Your task to perform on an android device: Go to notification settings Image 0: 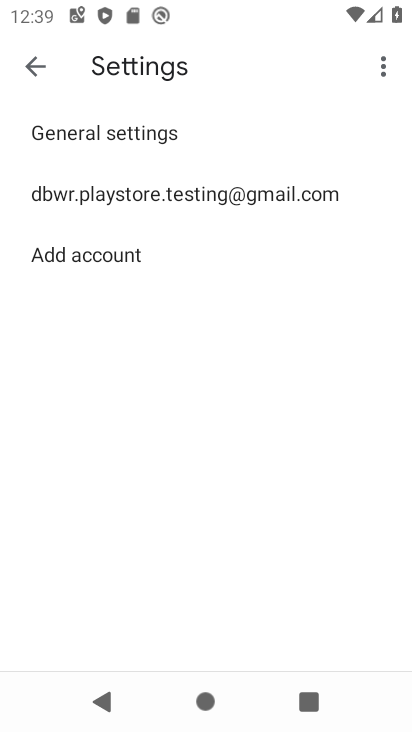
Step 0: press home button
Your task to perform on an android device: Go to notification settings Image 1: 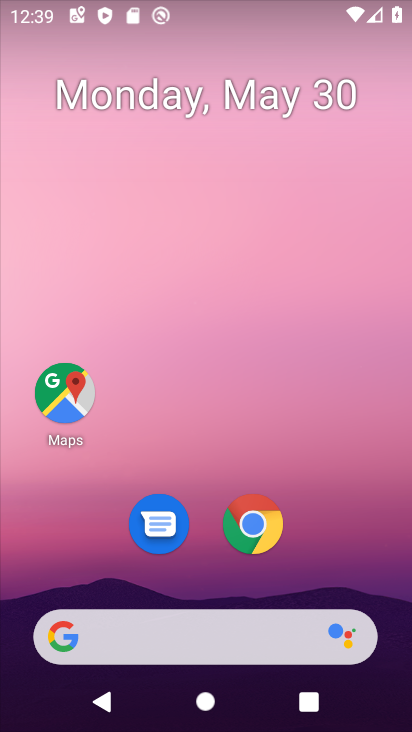
Step 1: drag from (248, 435) to (264, 1)
Your task to perform on an android device: Go to notification settings Image 2: 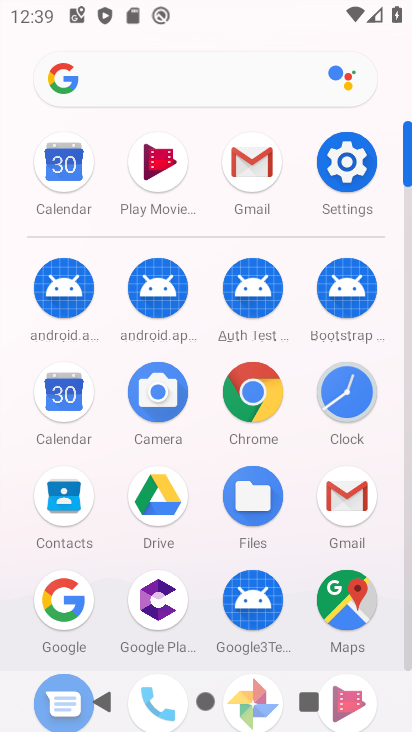
Step 2: click (344, 167)
Your task to perform on an android device: Go to notification settings Image 3: 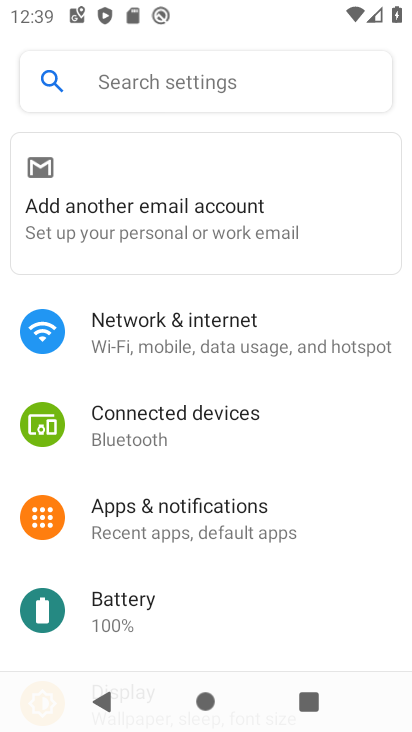
Step 3: click (207, 520)
Your task to perform on an android device: Go to notification settings Image 4: 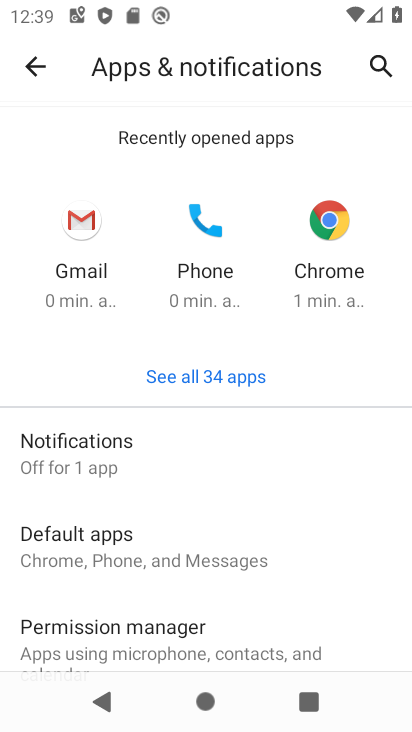
Step 4: click (187, 448)
Your task to perform on an android device: Go to notification settings Image 5: 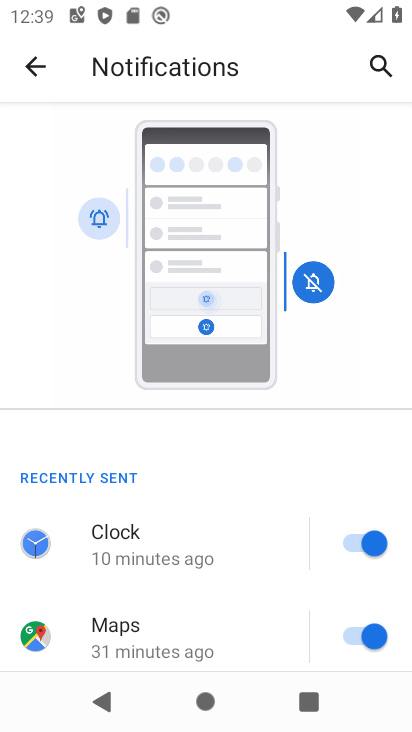
Step 5: task complete